Your task to perform on an android device: turn off sleep mode Image 0: 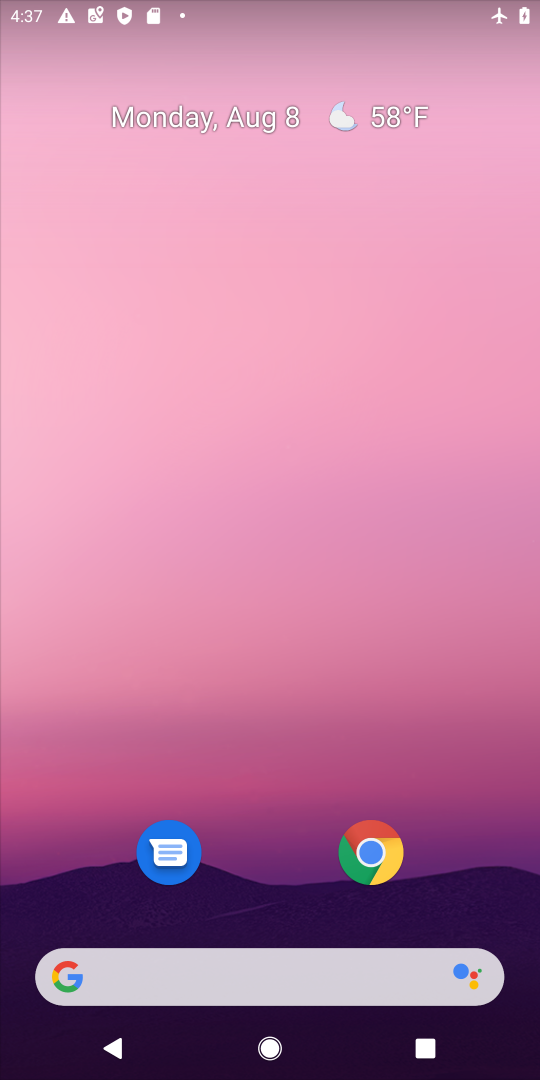
Step 0: drag from (254, 804) to (357, 165)
Your task to perform on an android device: turn off sleep mode Image 1: 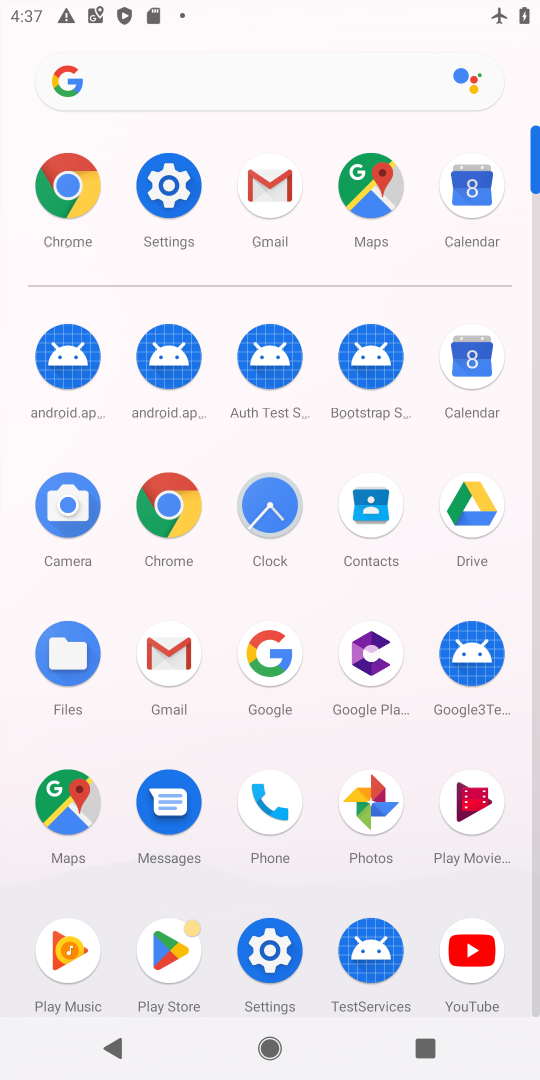
Step 1: click (273, 948)
Your task to perform on an android device: turn off sleep mode Image 2: 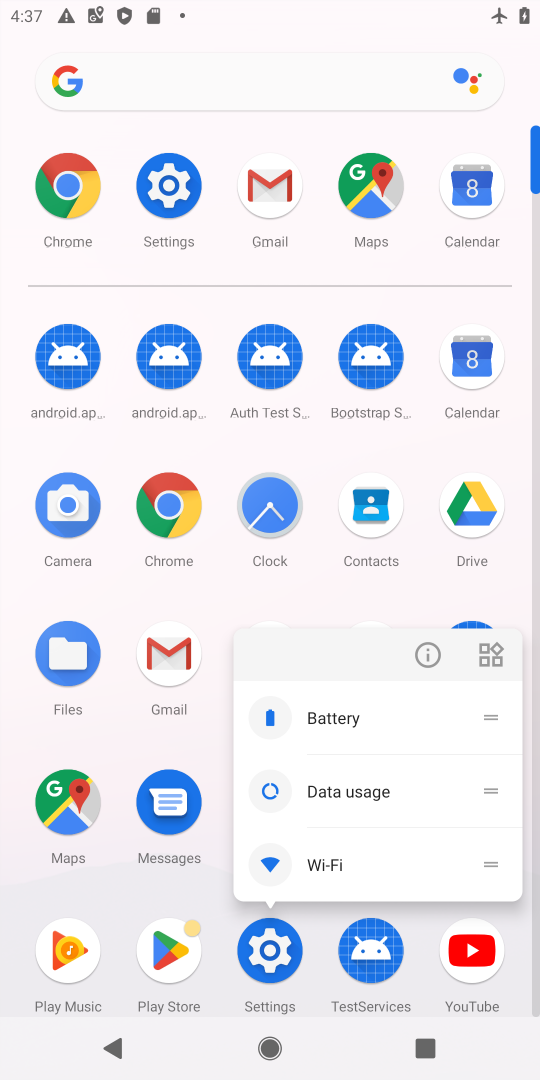
Step 2: click (263, 960)
Your task to perform on an android device: turn off sleep mode Image 3: 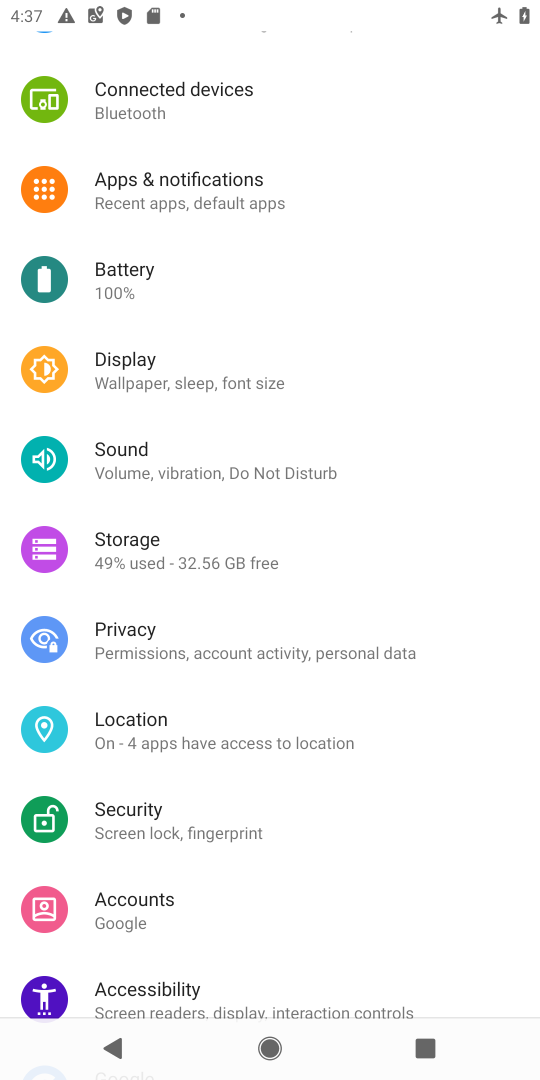
Step 3: click (176, 375)
Your task to perform on an android device: turn off sleep mode Image 4: 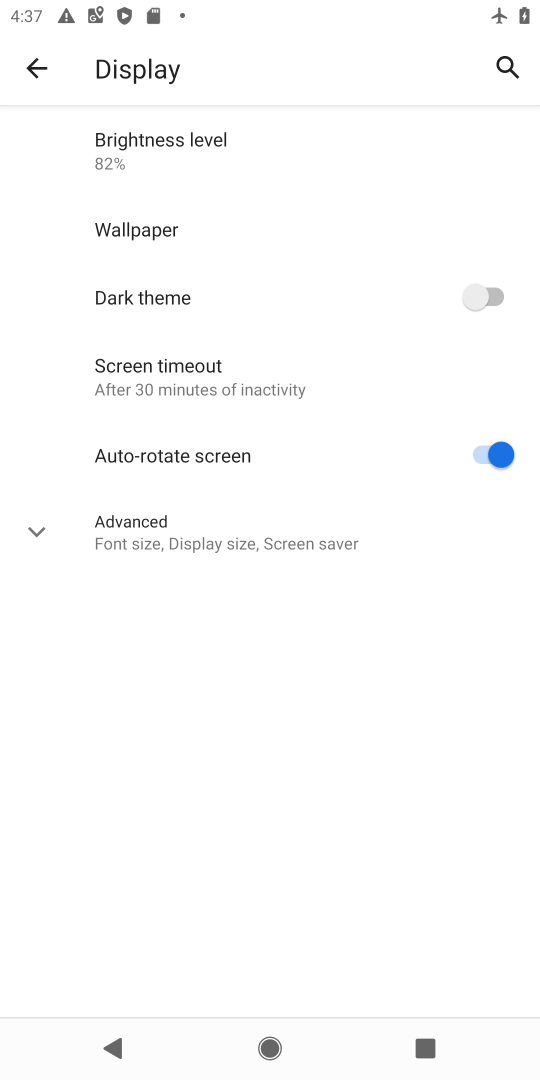
Step 4: click (137, 372)
Your task to perform on an android device: turn off sleep mode Image 5: 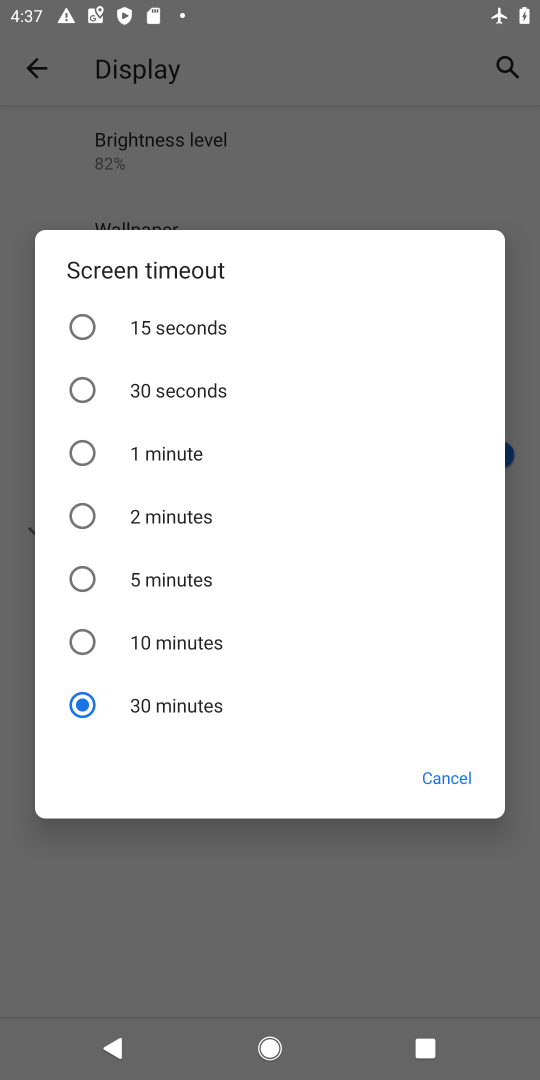
Step 5: task complete